Your task to perform on an android device: find snoozed emails in the gmail app Image 0: 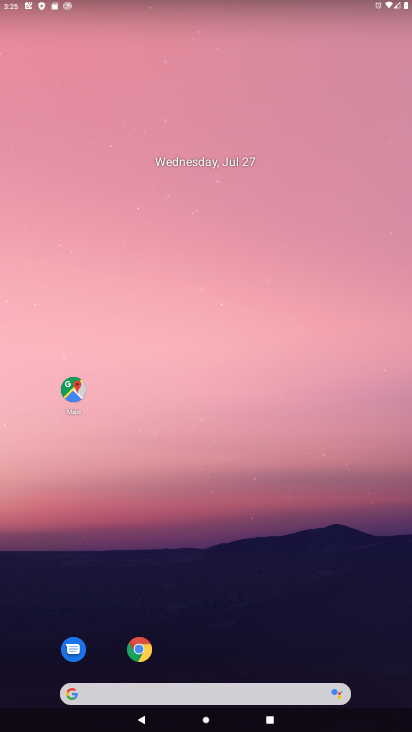
Step 0: drag from (383, 668) to (314, 64)
Your task to perform on an android device: find snoozed emails in the gmail app Image 1: 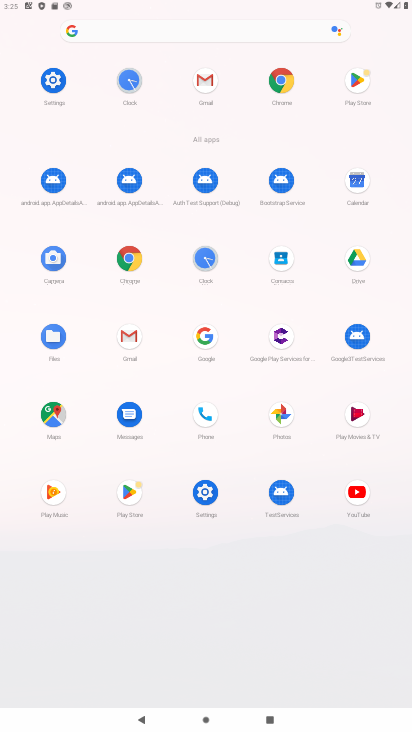
Step 1: click (127, 334)
Your task to perform on an android device: find snoozed emails in the gmail app Image 2: 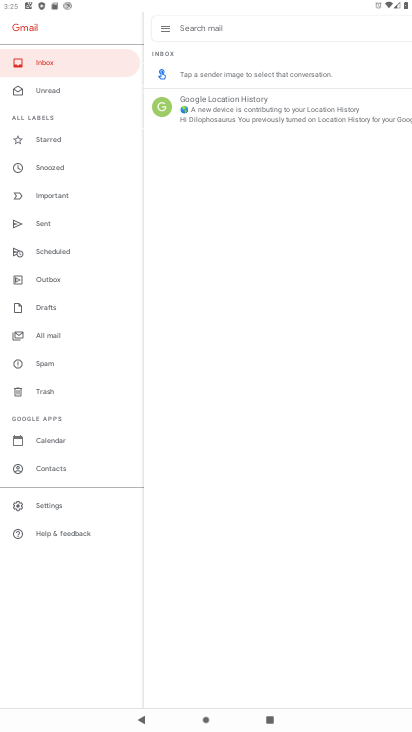
Step 2: click (46, 163)
Your task to perform on an android device: find snoozed emails in the gmail app Image 3: 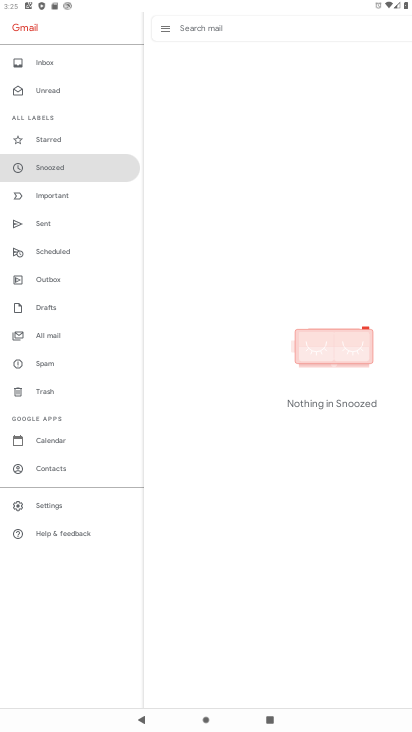
Step 3: task complete